Your task to perform on an android device: change the clock display to show seconds Image 0: 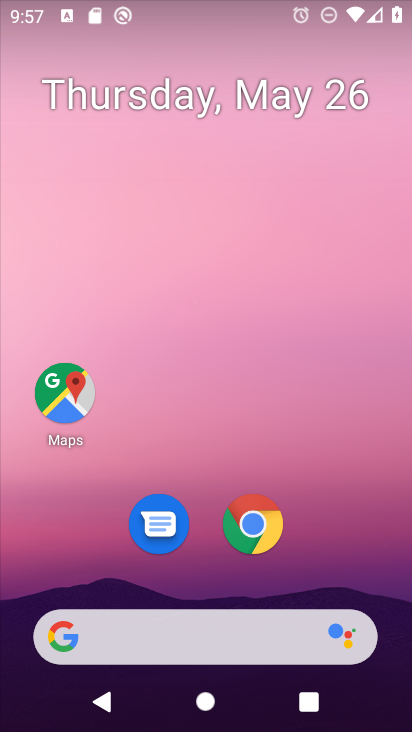
Step 0: drag from (330, 514) to (334, 59)
Your task to perform on an android device: change the clock display to show seconds Image 1: 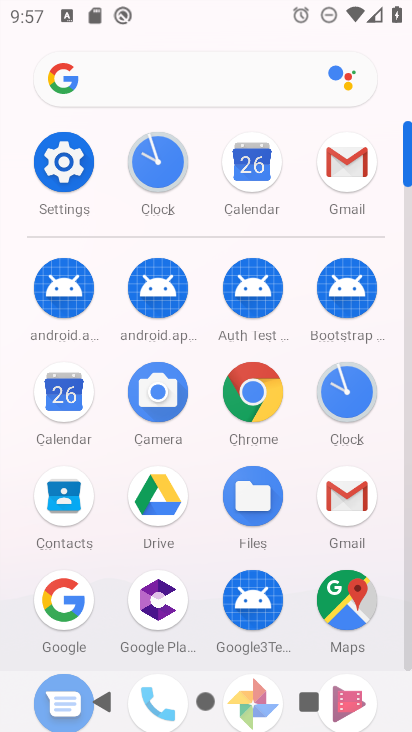
Step 1: click (172, 155)
Your task to perform on an android device: change the clock display to show seconds Image 2: 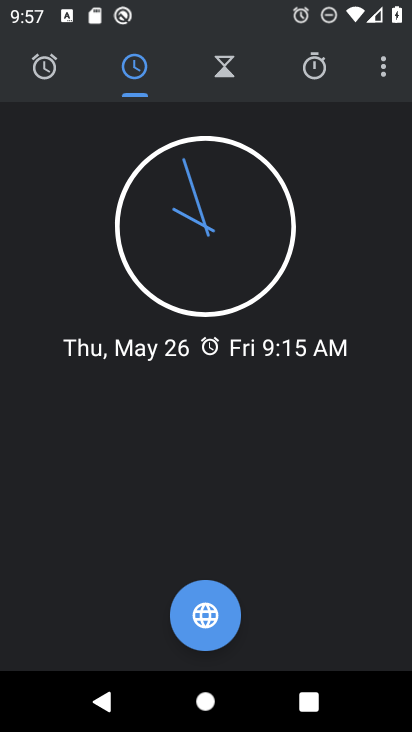
Step 2: click (383, 69)
Your task to perform on an android device: change the clock display to show seconds Image 3: 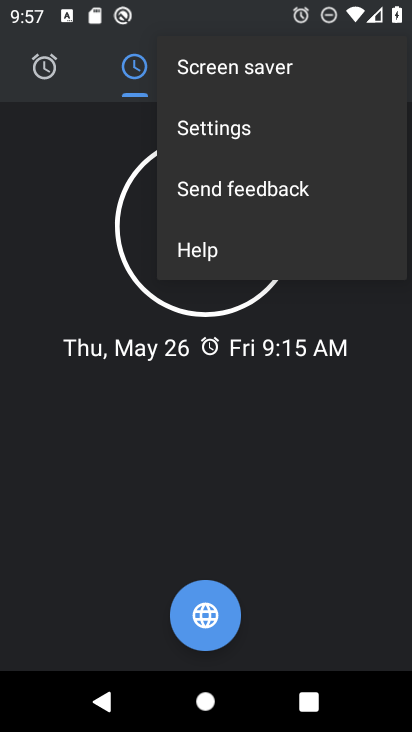
Step 3: click (303, 134)
Your task to perform on an android device: change the clock display to show seconds Image 4: 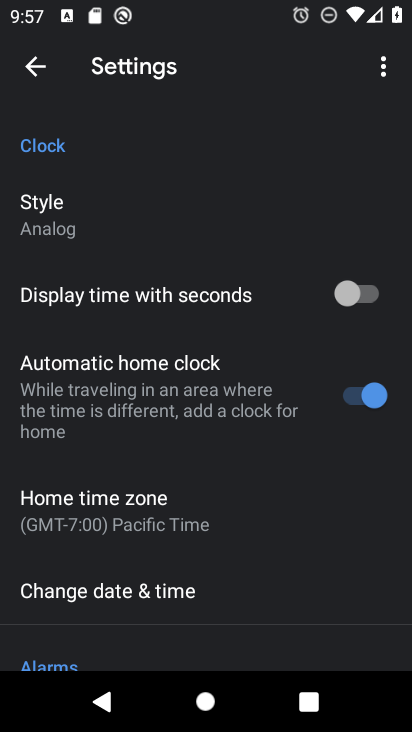
Step 4: click (357, 281)
Your task to perform on an android device: change the clock display to show seconds Image 5: 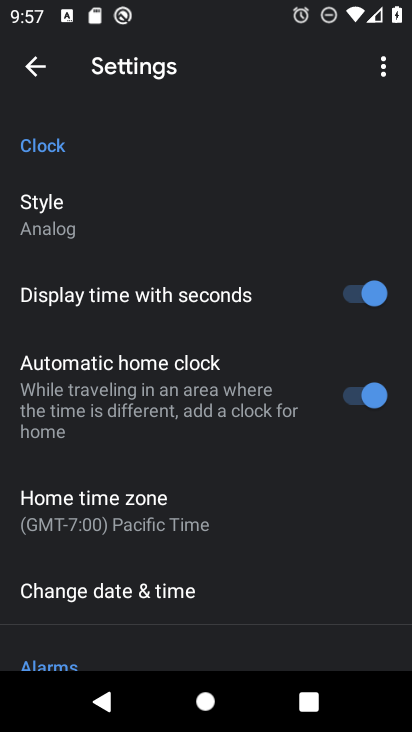
Step 5: task complete